Your task to perform on an android device: Open Maps and search for coffee Image 0: 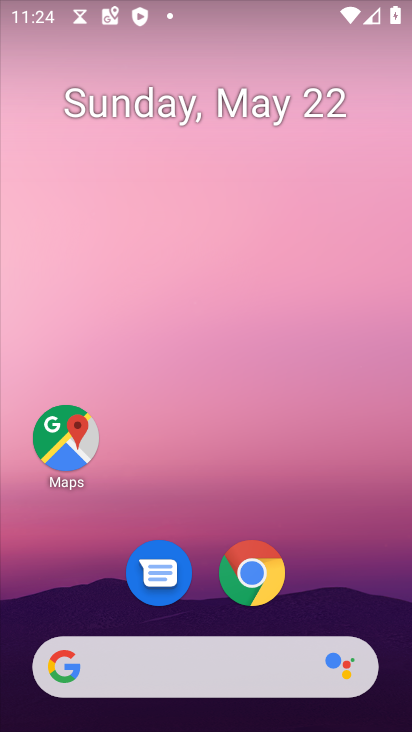
Step 0: press home button
Your task to perform on an android device: Open Maps and search for coffee Image 1: 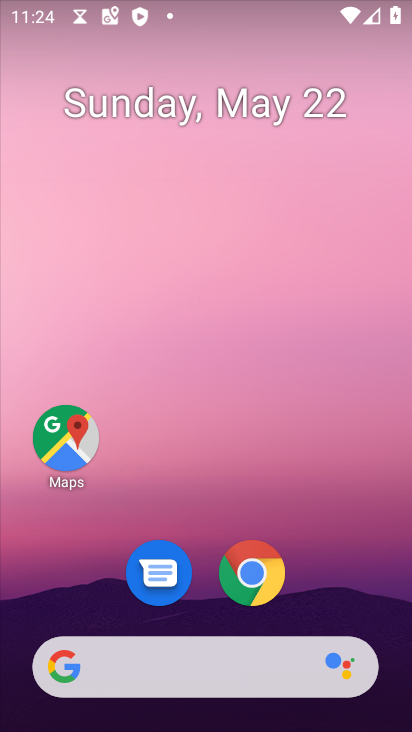
Step 1: click (72, 444)
Your task to perform on an android device: Open Maps and search for coffee Image 2: 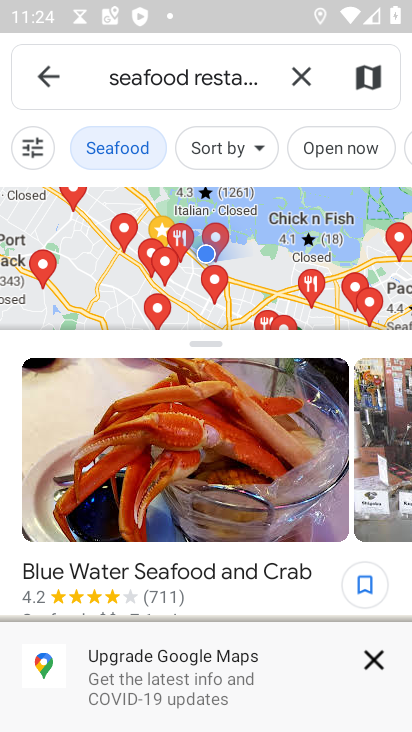
Step 2: click (307, 65)
Your task to perform on an android device: Open Maps and search for coffee Image 3: 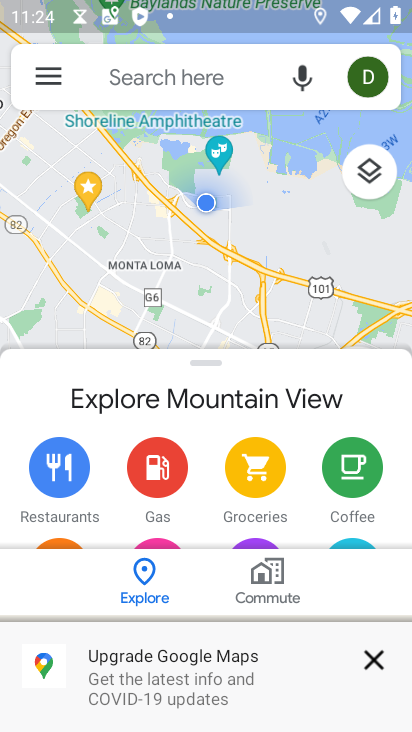
Step 3: click (190, 75)
Your task to perform on an android device: Open Maps and search for coffee Image 4: 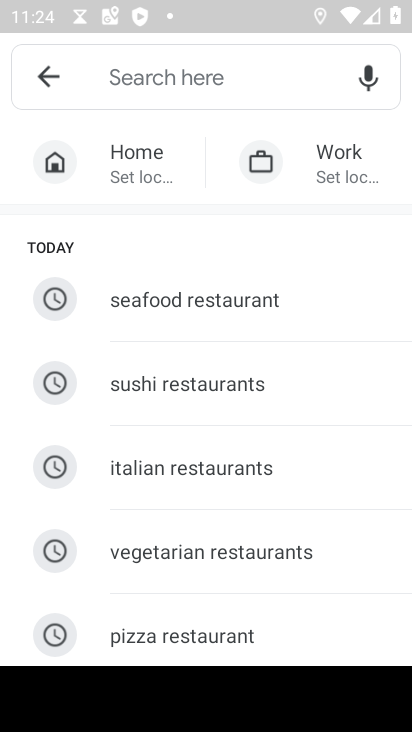
Step 4: drag from (236, 572) to (306, 241)
Your task to perform on an android device: Open Maps and search for coffee Image 5: 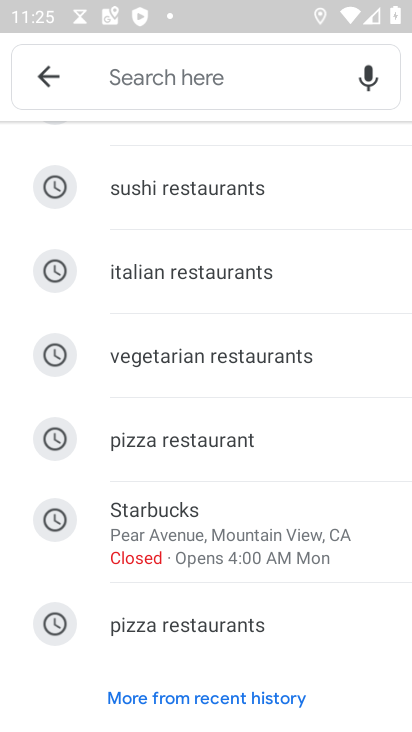
Step 5: type "coffee"
Your task to perform on an android device: Open Maps and search for coffee Image 6: 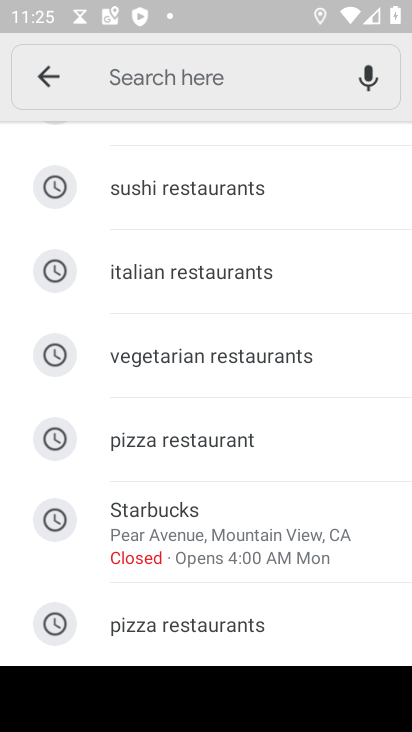
Step 6: click (69, 71)
Your task to perform on an android device: Open Maps and search for coffee Image 7: 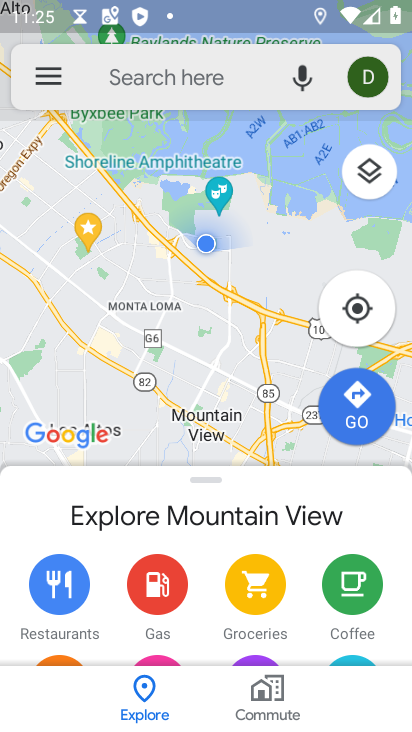
Step 7: click (189, 84)
Your task to perform on an android device: Open Maps and search for coffee Image 8: 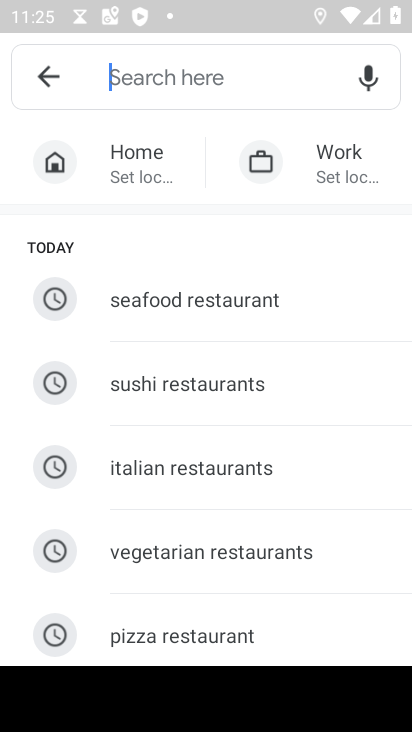
Step 8: type "coffee"
Your task to perform on an android device: Open Maps and search for coffee Image 9: 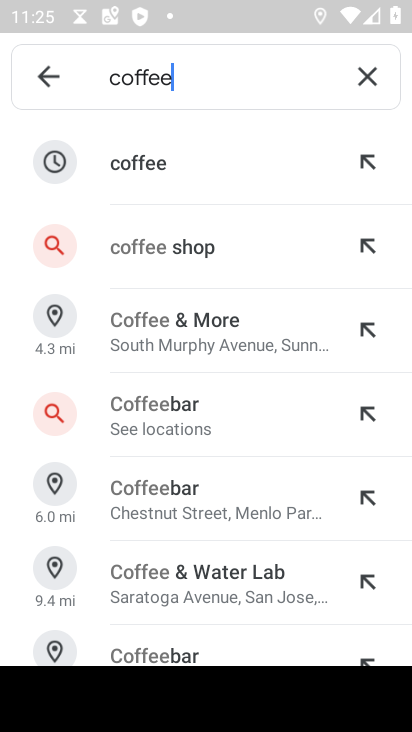
Step 9: click (151, 171)
Your task to perform on an android device: Open Maps and search for coffee Image 10: 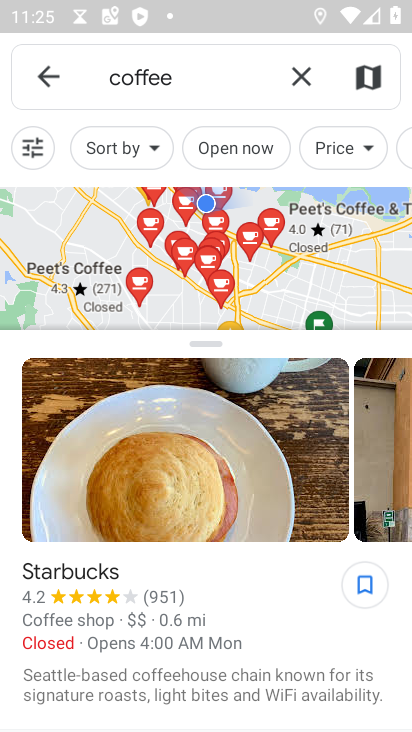
Step 10: task complete